Your task to perform on an android device: turn off airplane mode Image 0: 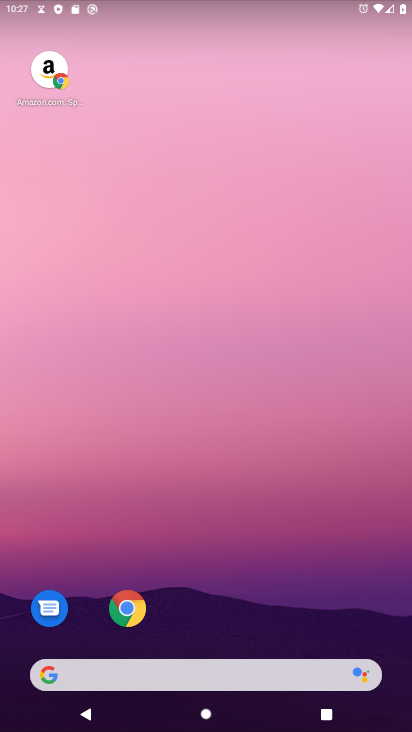
Step 0: drag from (172, 676) to (137, 164)
Your task to perform on an android device: turn off airplane mode Image 1: 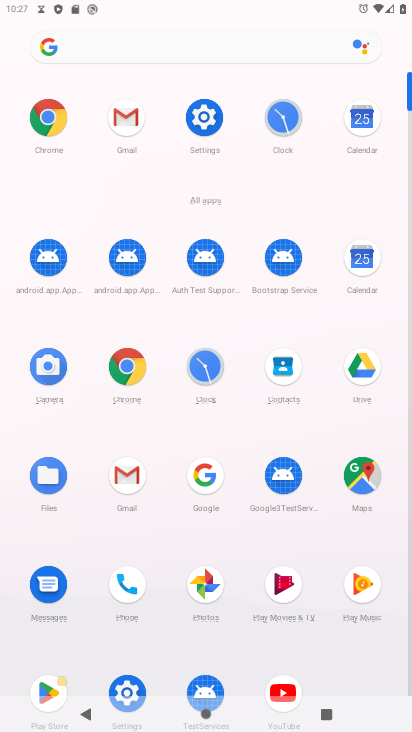
Step 1: click (203, 116)
Your task to perform on an android device: turn off airplane mode Image 2: 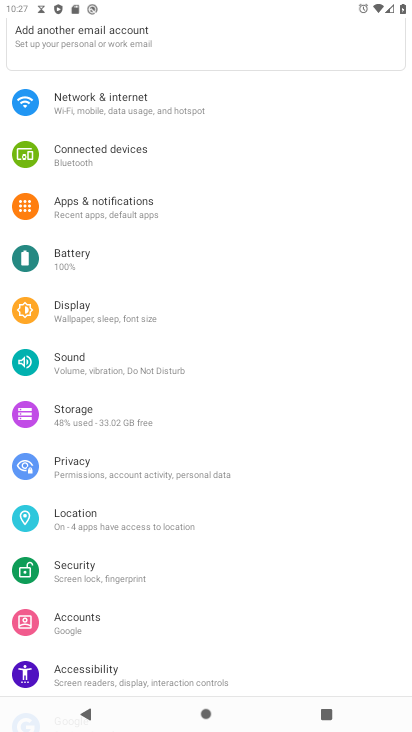
Step 2: click (160, 111)
Your task to perform on an android device: turn off airplane mode Image 3: 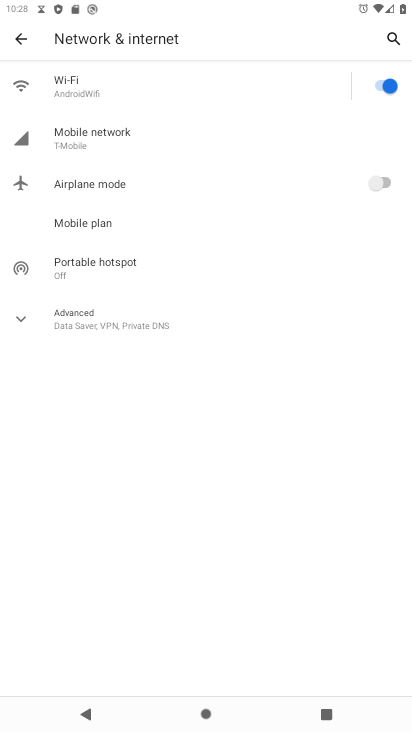
Step 3: task complete